Your task to perform on an android device: empty trash in the gmail app Image 0: 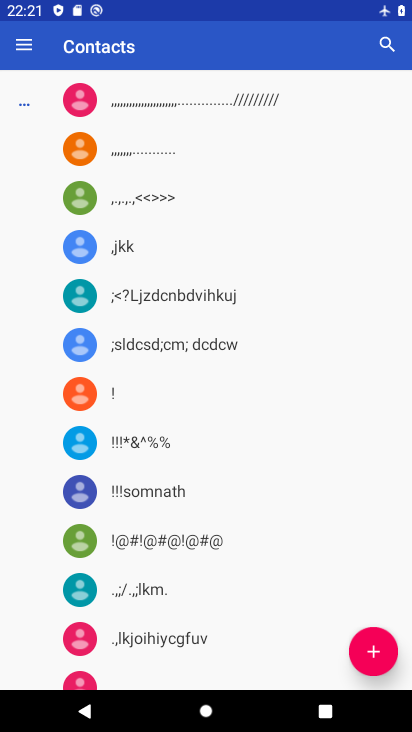
Step 0: press back button
Your task to perform on an android device: empty trash in the gmail app Image 1: 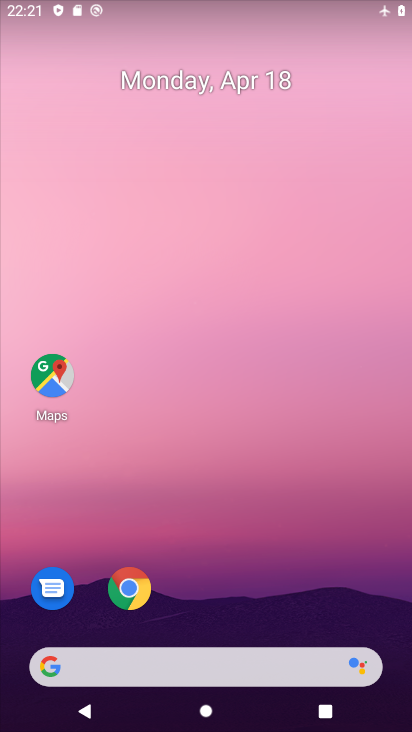
Step 1: drag from (268, 604) to (315, 0)
Your task to perform on an android device: empty trash in the gmail app Image 2: 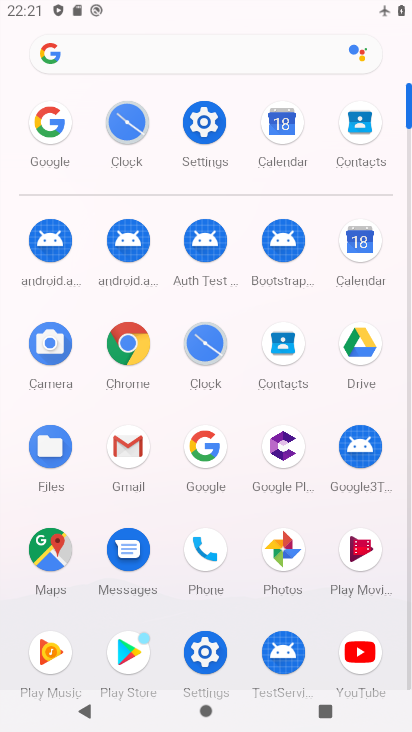
Step 2: click (118, 454)
Your task to perform on an android device: empty trash in the gmail app Image 3: 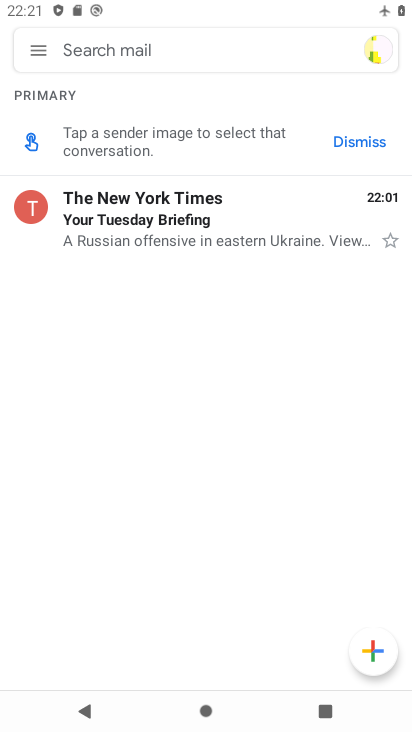
Step 3: click (34, 56)
Your task to perform on an android device: empty trash in the gmail app Image 4: 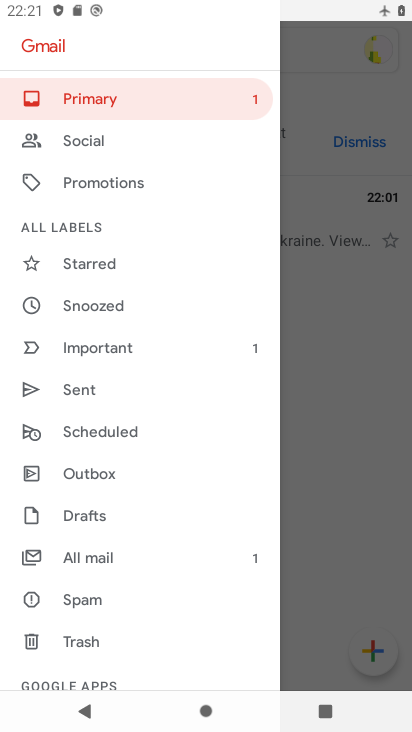
Step 4: click (181, 651)
Your task to perform on an android device: empty trash in the gmail app Image 5: 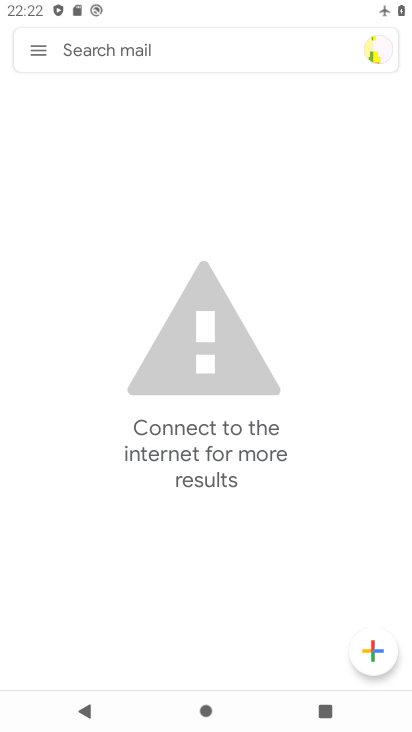
Step 5: task complete